Your task to perform on an android device: What's on my calendar today? Image 0: 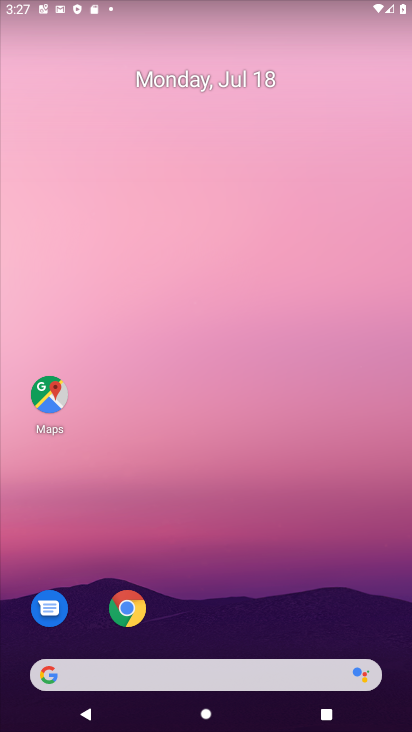
Step 0: drag from (221, 611) to (300, 150)
Your task to perform on an android device: What's on my calendar today? Image 1: 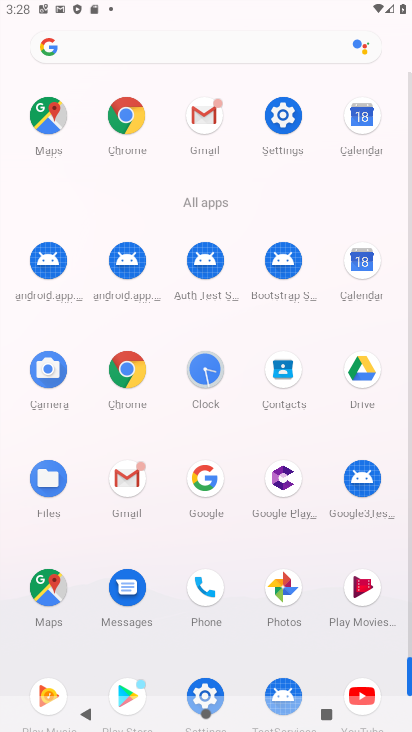
Step 1: click (370, 278)
Your task to perform on an android device: What's on my calendar today? Image 2: 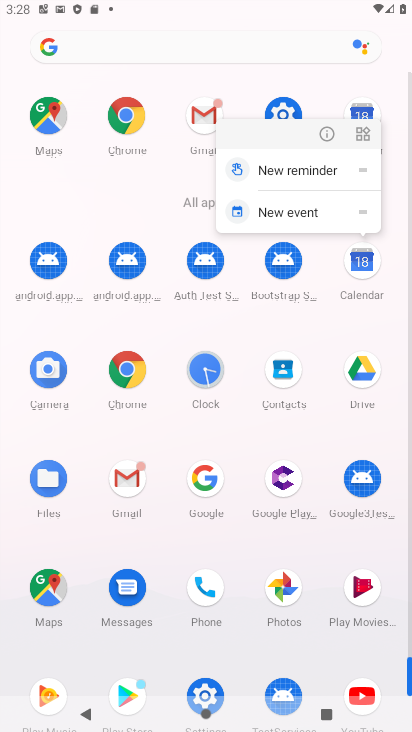
Step 2: click (360, 283)
Your task to perform on an android device: What's on my calendar today? Image 3: 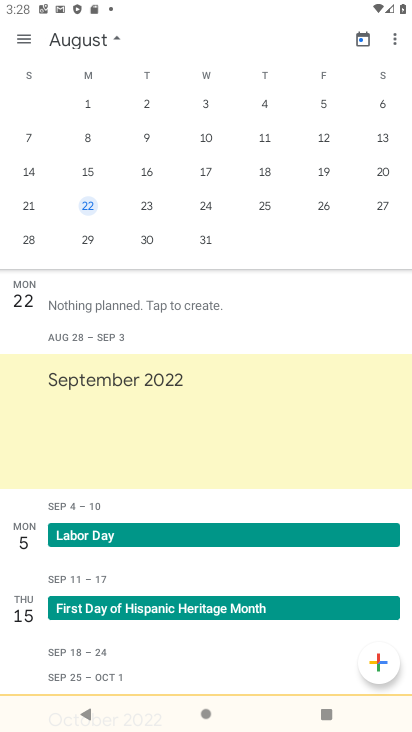
Step 3: click (92, 201)
Your task to perform on an android device: What's on my calendar today? Image 4: 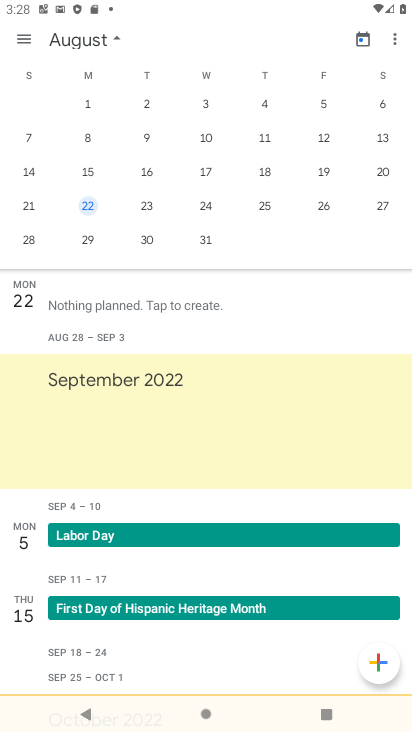
Step 4: drag from (105, 128) to (407, 143)
Your task to perform on an android device: What's on my calendar today? Image 5: 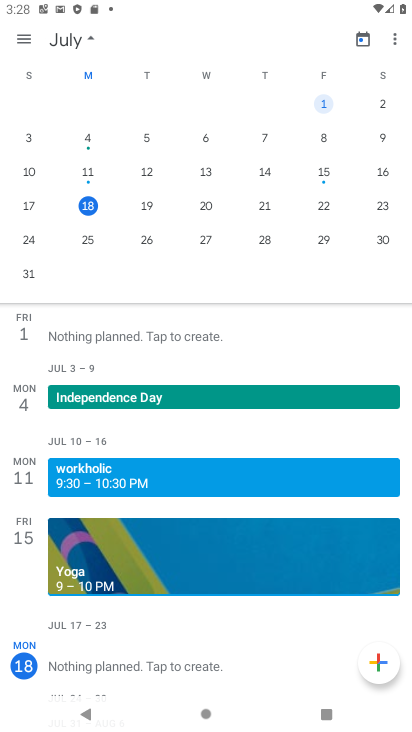
Step 5: click (90, 209)
Your task to perform on an android device: What's on my calendar today? Image 6: 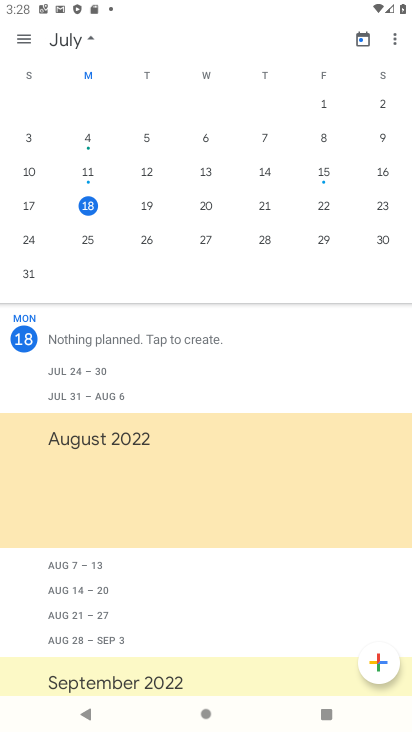
Step 6: task complete